Your task to perform on an android device: change the clock style Image 0: 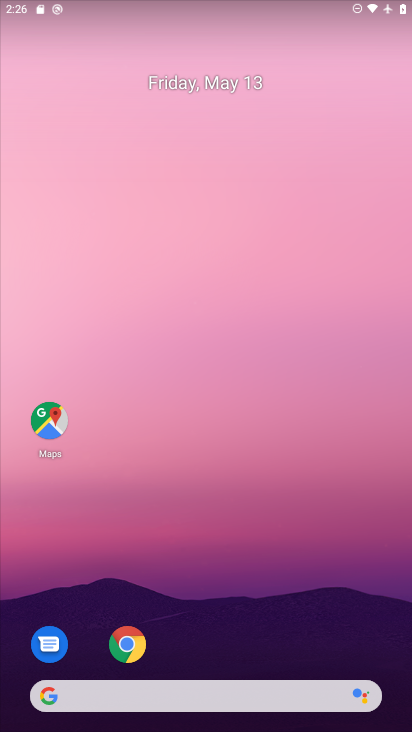
Step 0: drag from (348, 634) to (235, 53)
Your task to perform on an android device: change the clock style Image 1: 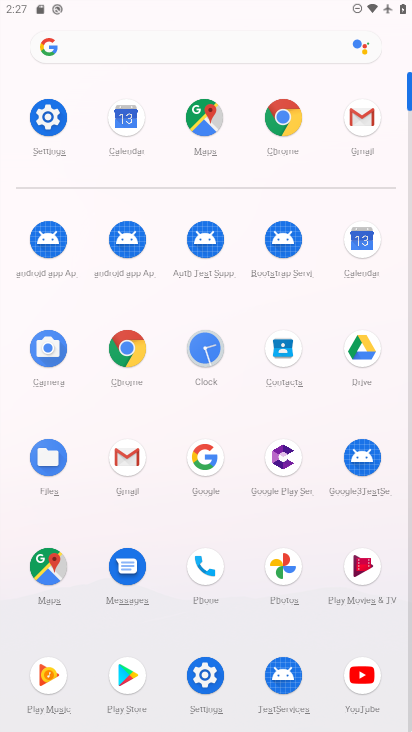
Step 1: click (206, 344)
Your task to perform on an android device: change the clock style Image 2: 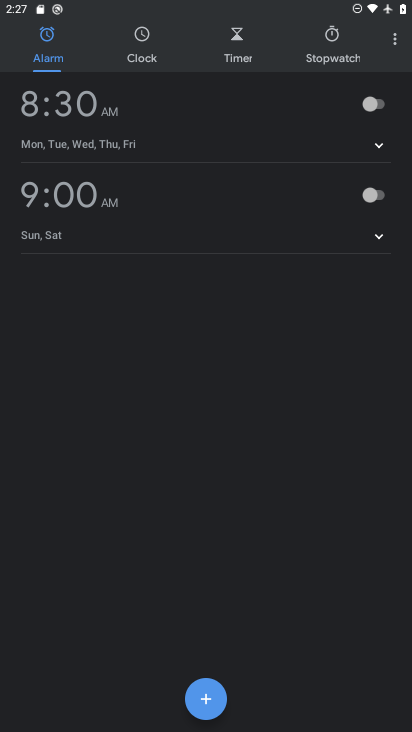
Step 2: click (398, 41)
Your task to perform on an android device: change the clock style Image 3: 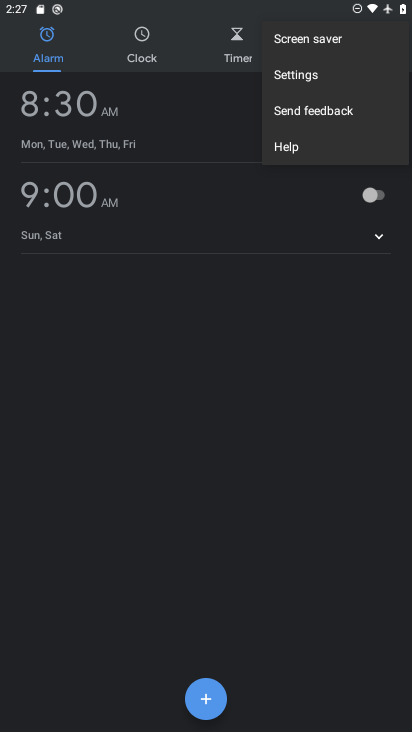
Step 3: click (290, 87)
Your task to perform on an android device: change the clock style Image 4: 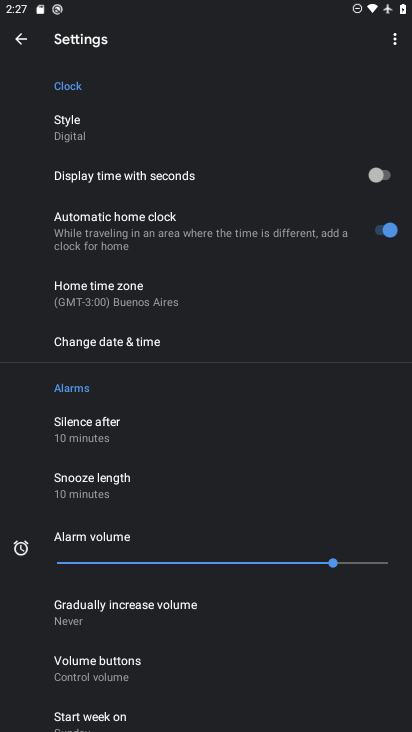
Step 4: click (100, 126)
Your task to perform on an android device: change the clock style Image 5: 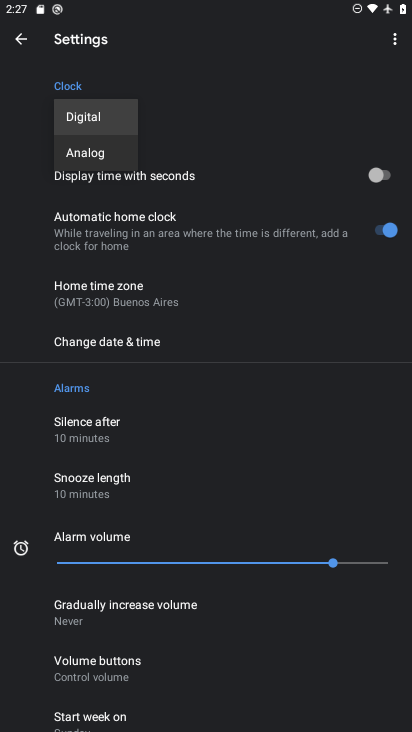
Step 5: click (99, 125)
Your task to perform on an android device: change the clock style Image 6: 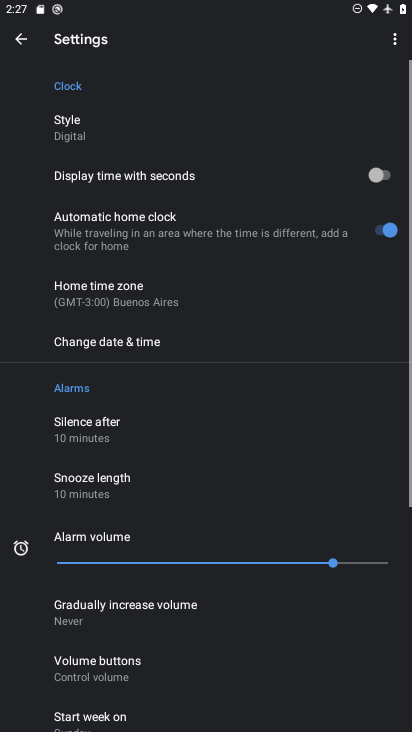
Step 6: task complete